Your task to perform on an android device: Go to CNN.com Image 0: 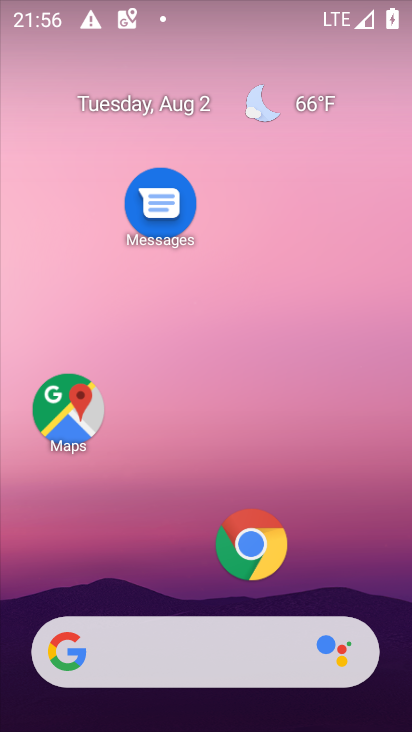
Step 0: click (245, 539)
Your task to perform on an android device: Go to CNN.com Image 1: 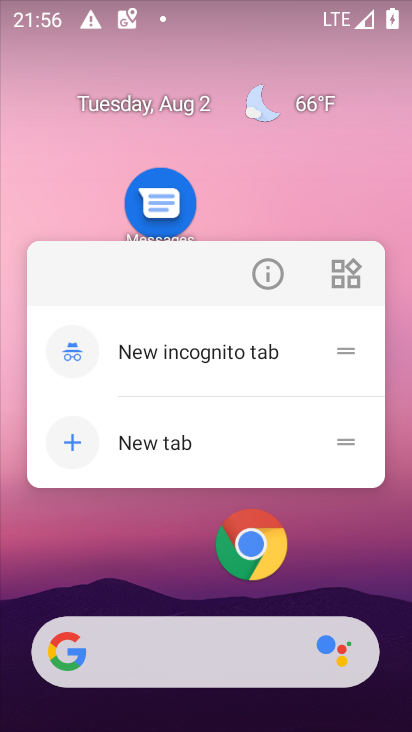
Step 1: click (264, 542)
Your task to perform on an android device: Go to CNN.com Image 2: 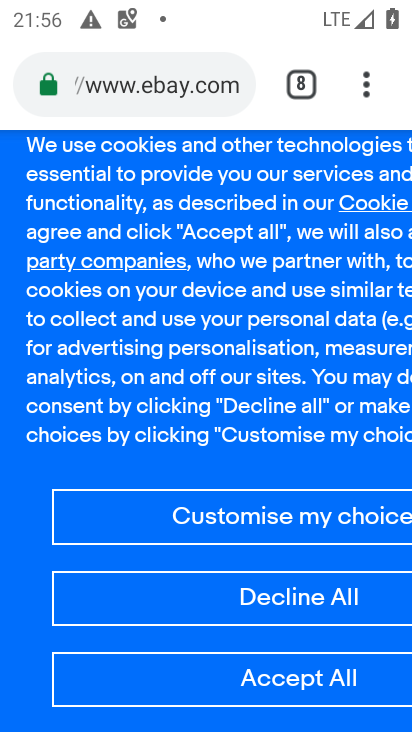
Step 2: click (286, 82)
Your task to perform on an android device: Go to CNN.com Image 3: 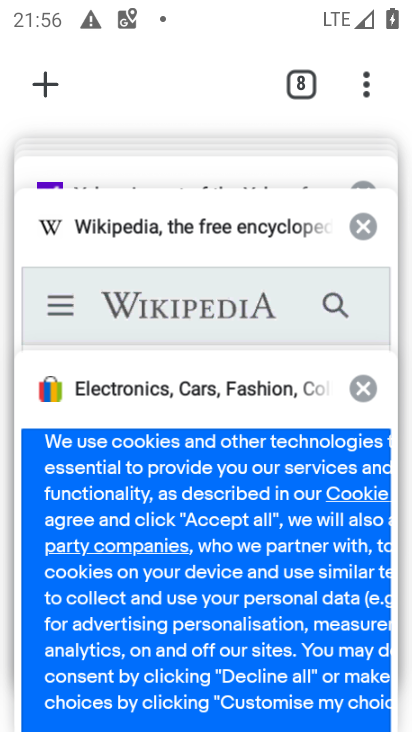
Step 3: click (53, 81)
Your task to perform on an android device: Go to CNN.com Image 4: 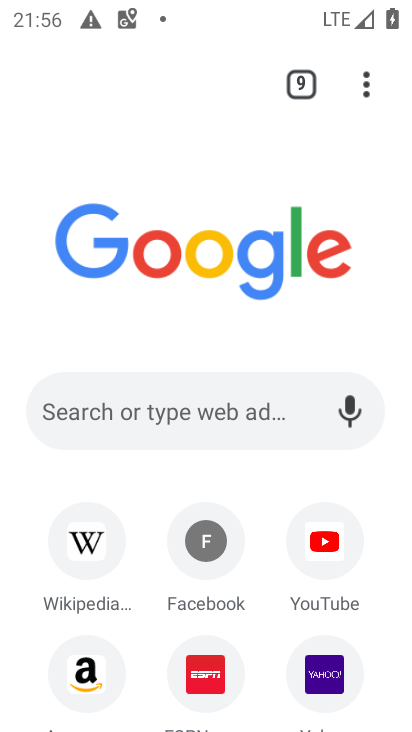
Step 4: click (166, 417)
Your task to perform on an android device: Go to CNN.com Image 5: 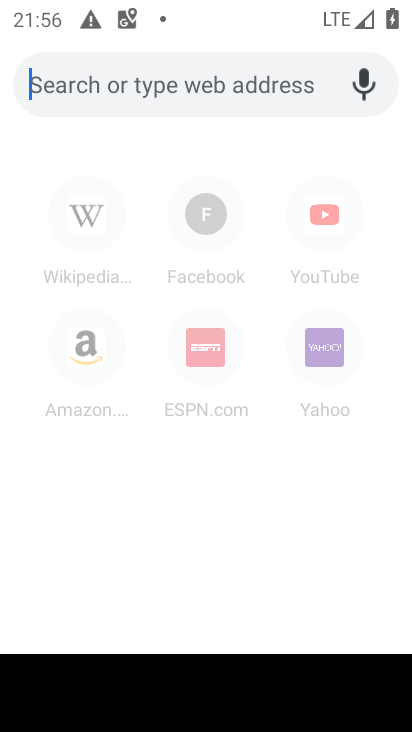
Step 5: type "CNN.com"
Your task to perform on an android device: Go to CNN.com Image 6: 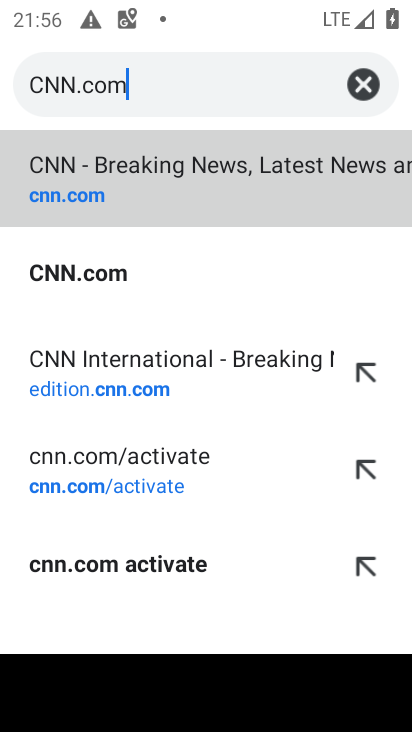
Step 6: type ""
Your task to perform on an android device: Go to CNN.com Image 7: 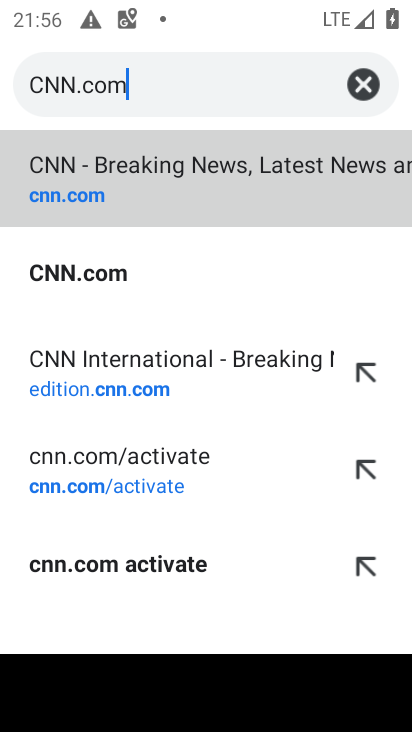
Step 7: click (284, 165)
Your task to perform on an android device: Go to CNN.com Image 8: 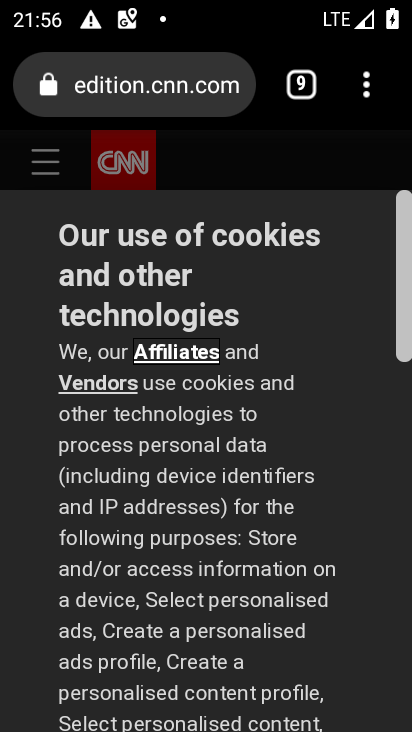
Step 8: task complete